Your task to perform on an android device: search for accent chairs on article.com Image 0: 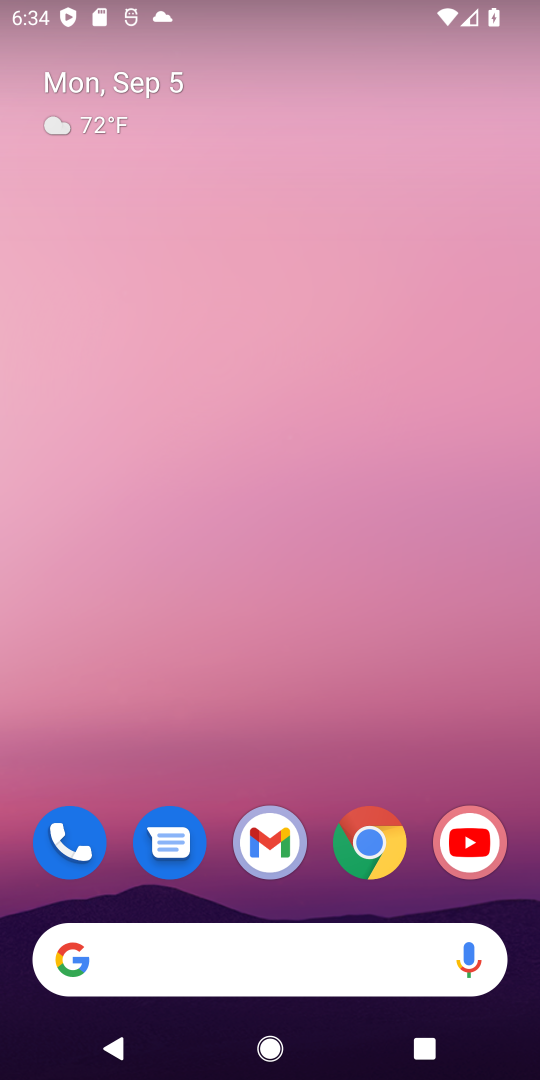
Step 0: click (371, 839)
Your task to perform on an android device: search for accent chairs on article.com Image 1: 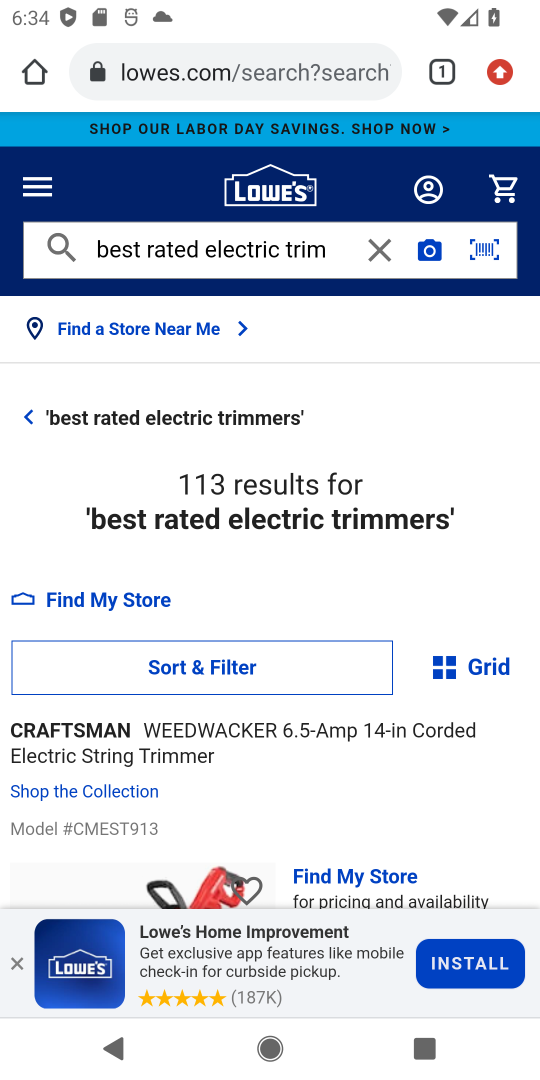
Step 1: click (353, 78)
Your task to perform on an android device: search for accent chairs on article.com Image 2: 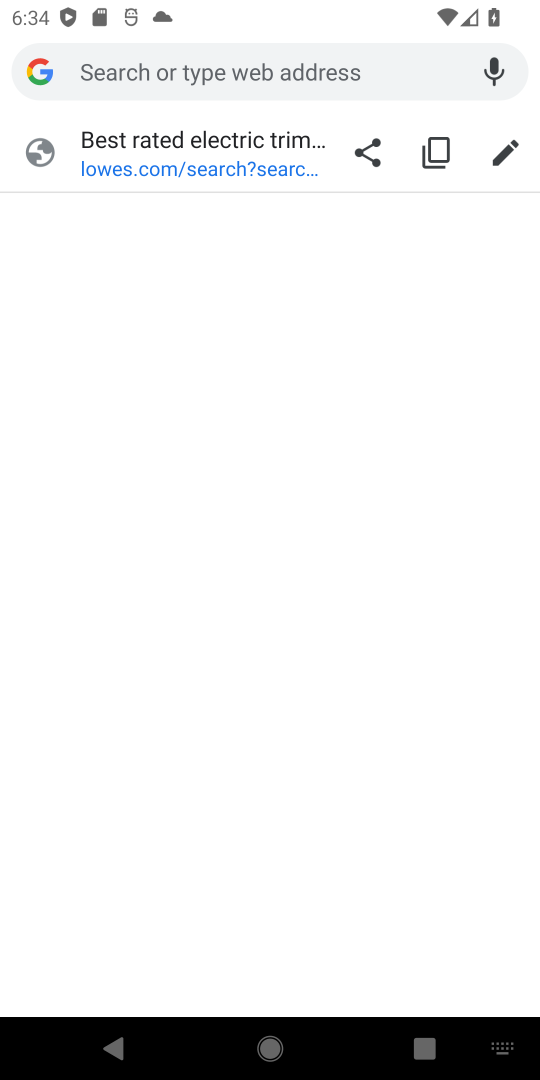
Step 2: type "article.com"
Your task to perform on an android device: search for accent chairs on article.com Image 3: 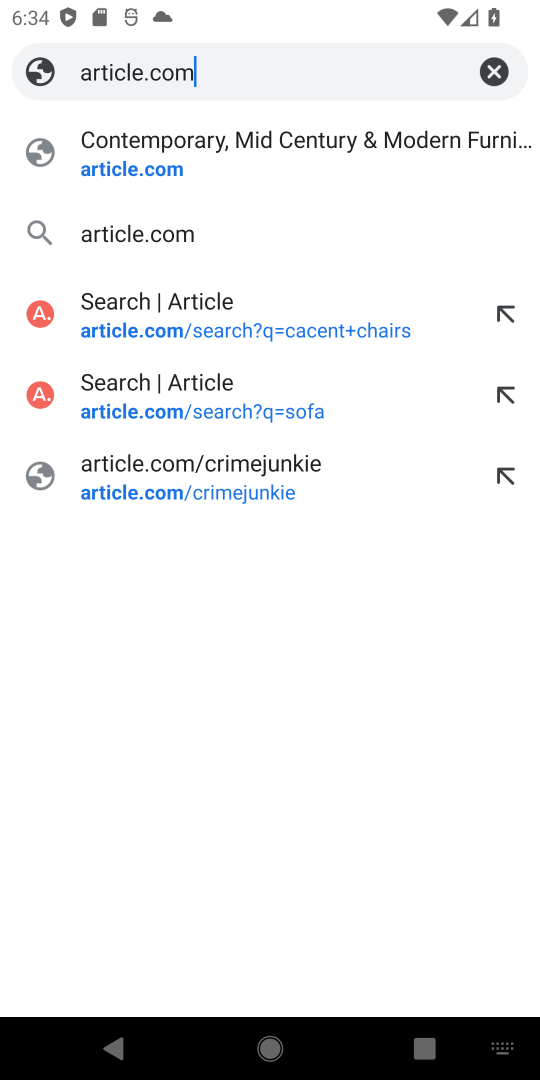
Step 3: click (176, 227)
Your task to perform on an android device: search for accent chairs on article.com Image 4: 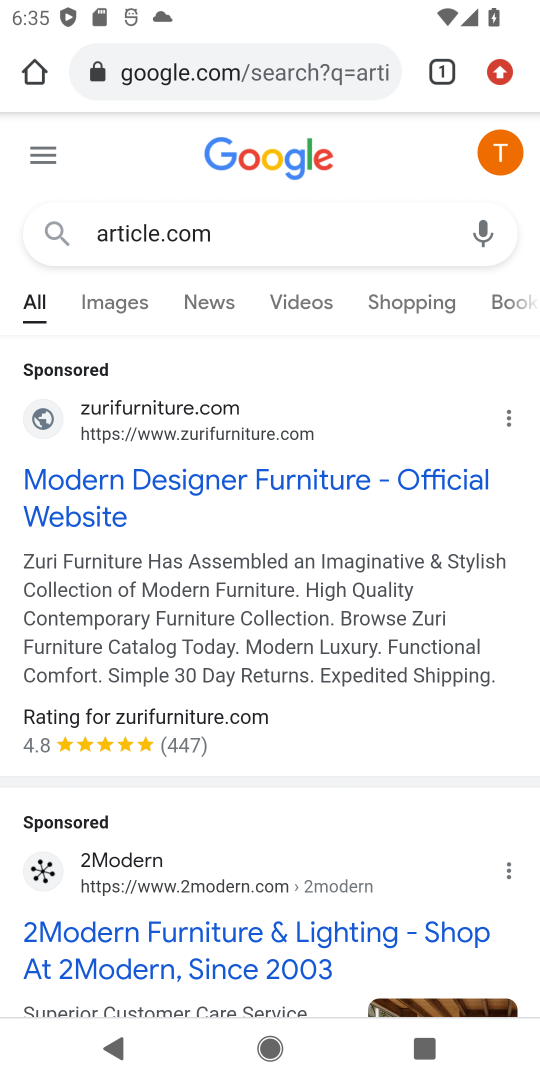
Step 4: drag from (315, 817) to (350, 488)
Your task to perform on an android device: search for accent chairs on article.com Image 5: 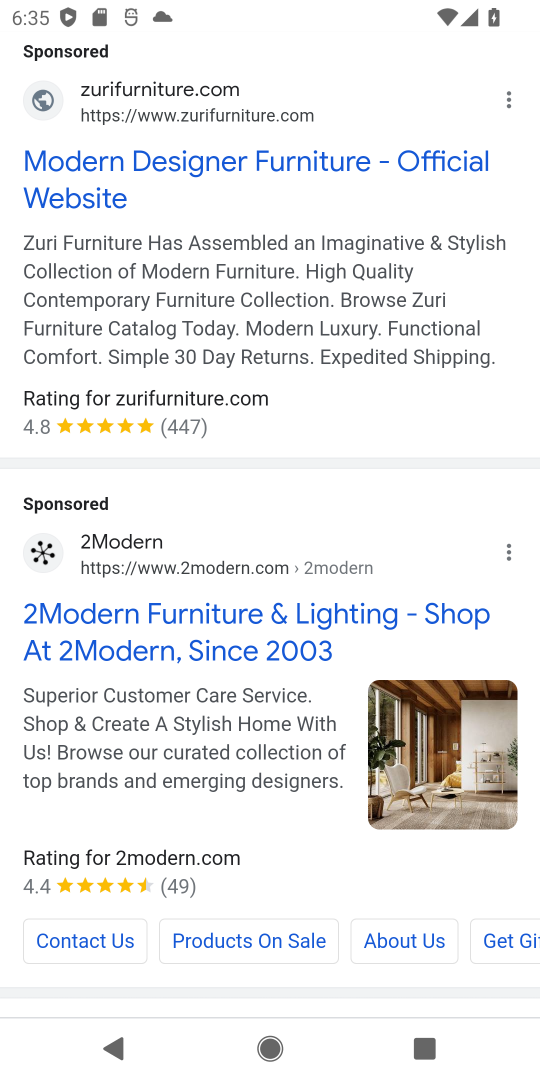
Step 5: drag from (249, 519) to (415, 243)
Your task to perform on an android device: search for accent chairs on article.com Image 6: 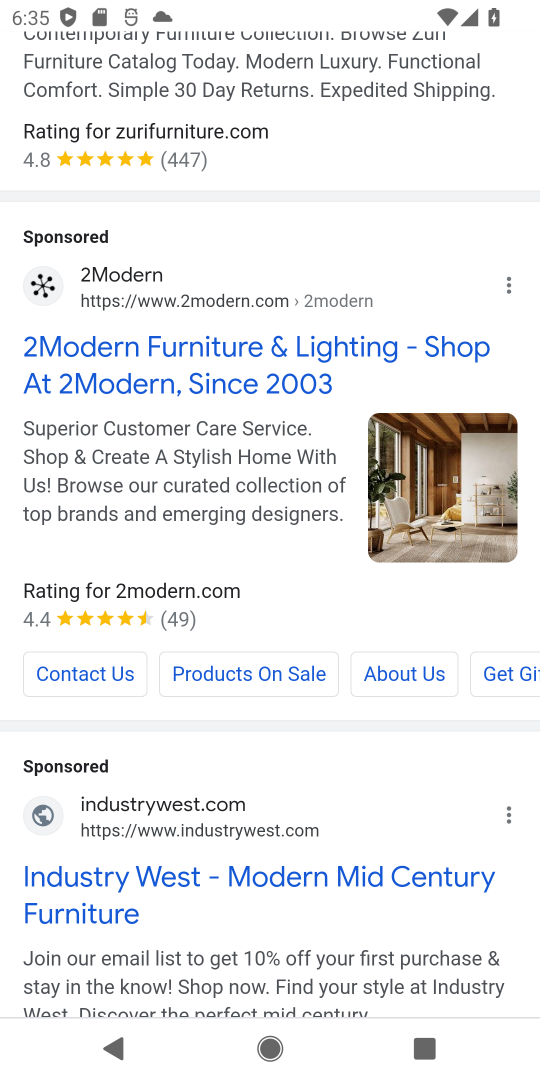
Step 6: drag from (324, 765) to (447, 389)
Your task to perform on an android device: search for accent chairs on article.com Image 7: 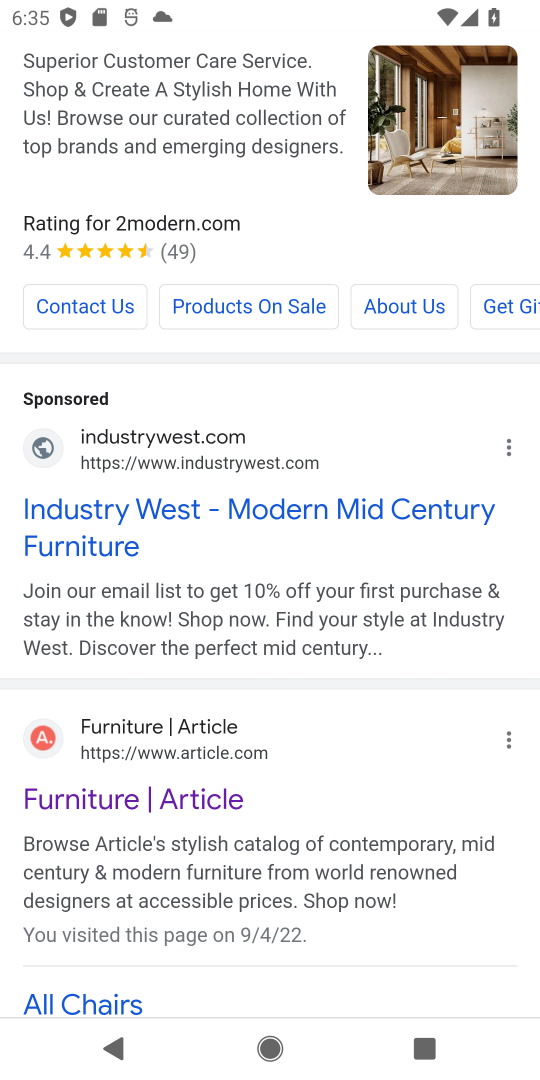
Step 7: click (280, 765)
Your task to perform on an android device: search for accent chairs on article.com Image 8: 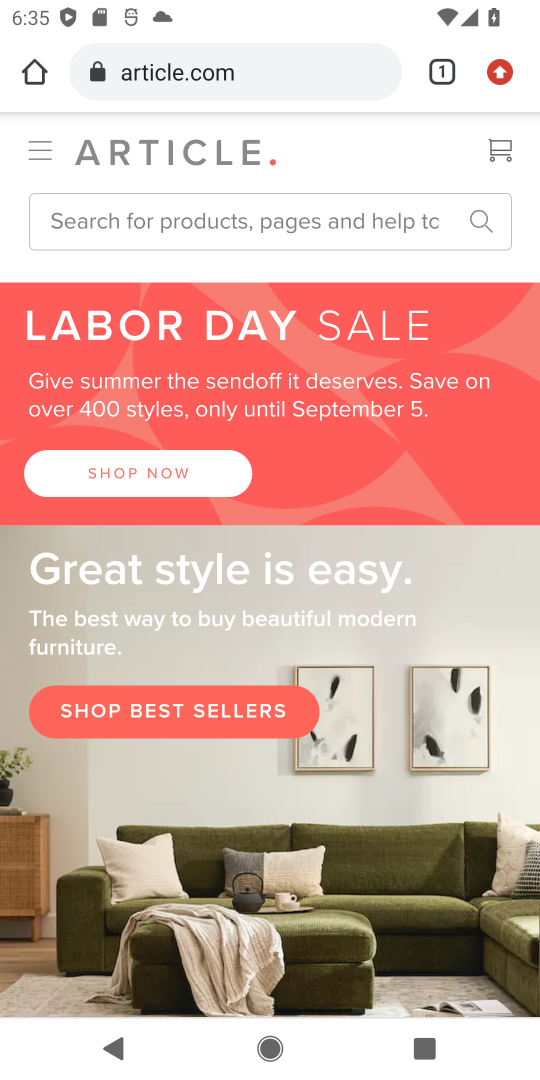
Step 8: click (423, 225)
Your task to perform on an android device: search for accent chairs on article.com Image 9: 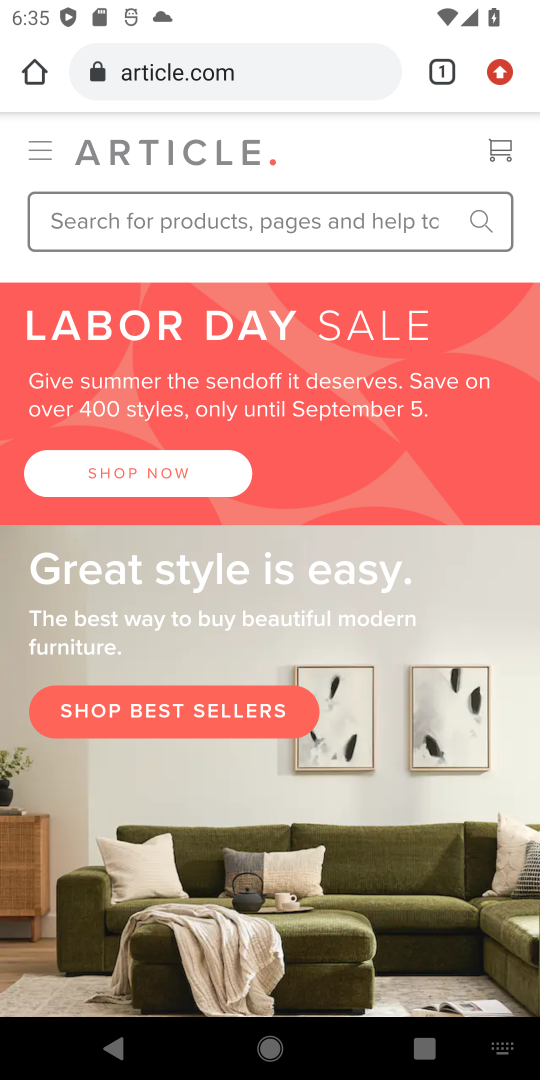
Step 9: click (373, 241)
Your task to perform on an android device: search for accent chairs on article.com Image 10: 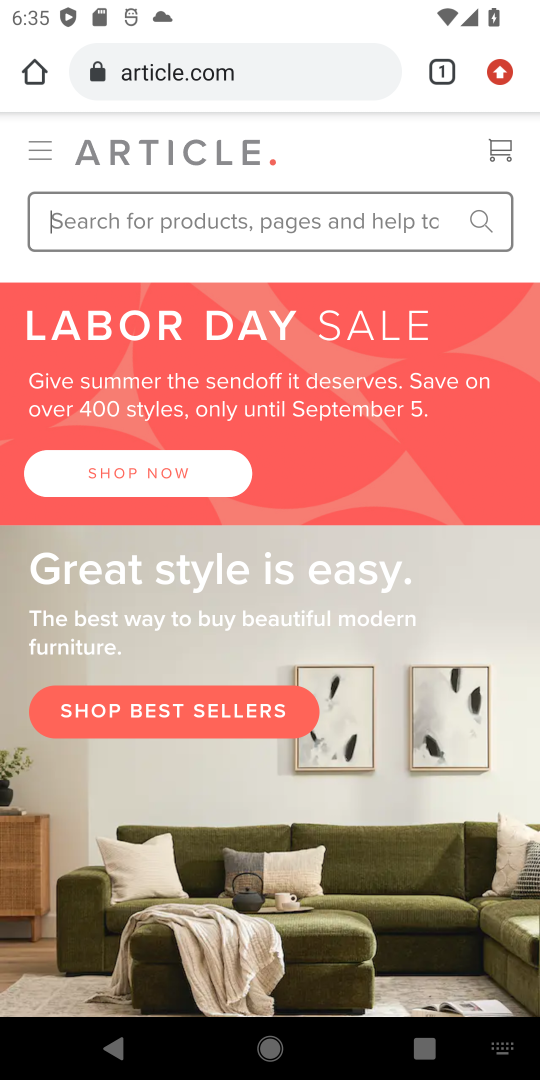
Step 10: drag from (275, 254) to (233, 226)
Your task to perform on an android device: search for accent chairs on article.com Image 11: 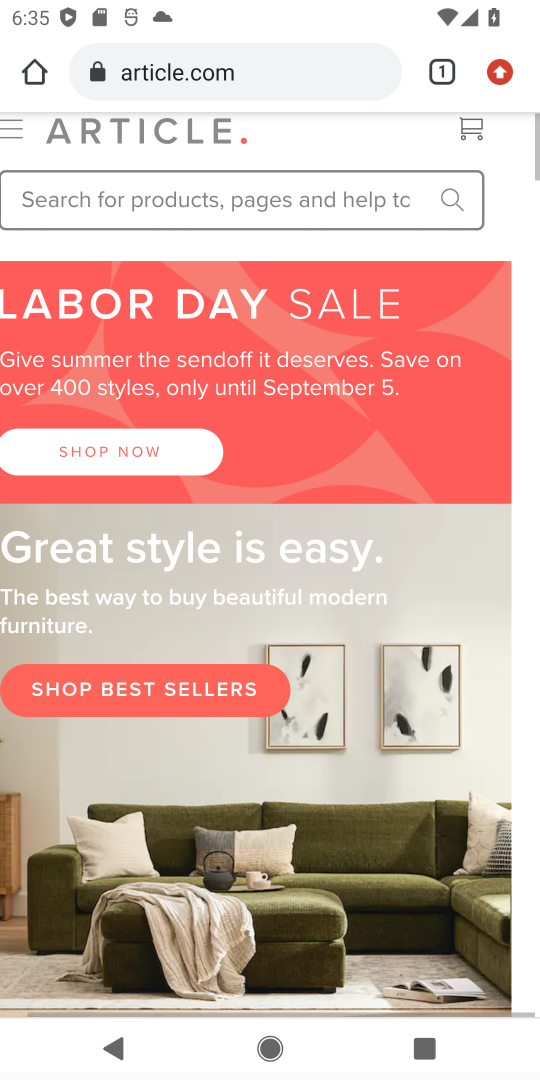
Step 11: click (233, 226)
Your task to perform on an android device: search for accent chairs on article.com Image 12: 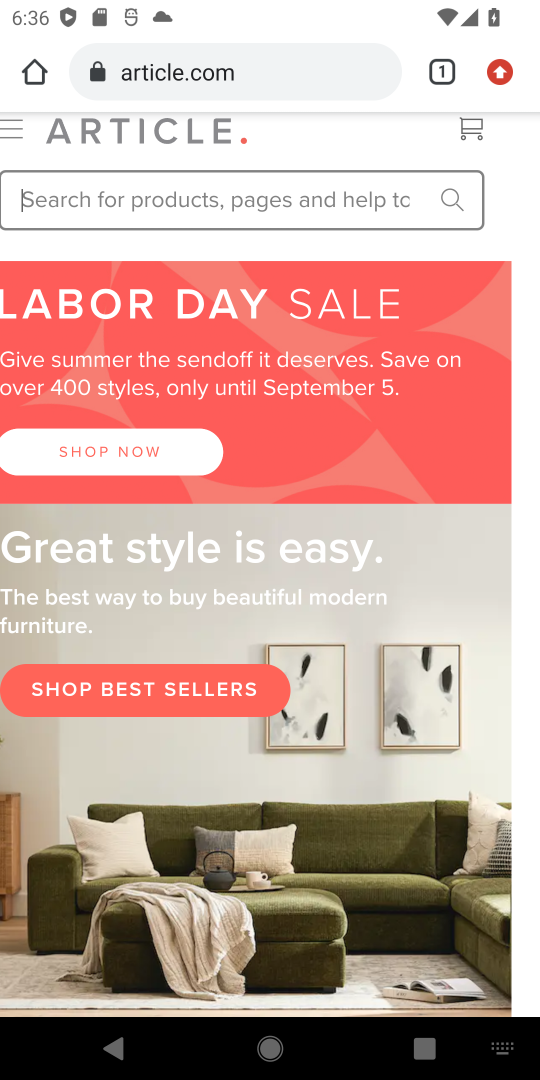
Step 12: type "accent chairs"
Your task to perform on an android device: search for accent chairs on article.com Image 13: 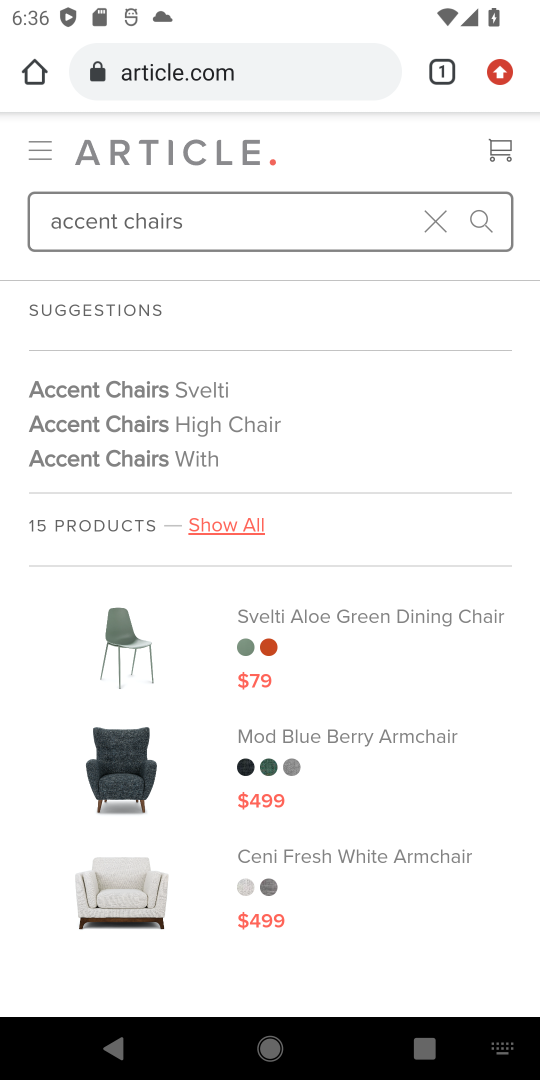
Step 13: click (474, 225)
Your task to perform on an android device: search for accent chairs on article.com Image 14: 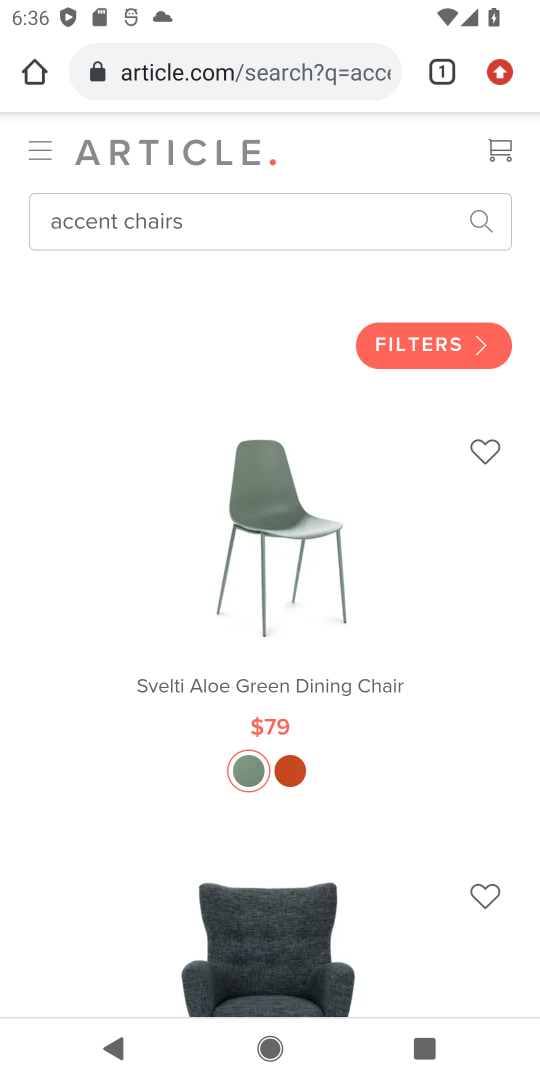
Step 14: task complete